Your task to perform on an android device: toggle wifi Image 0: 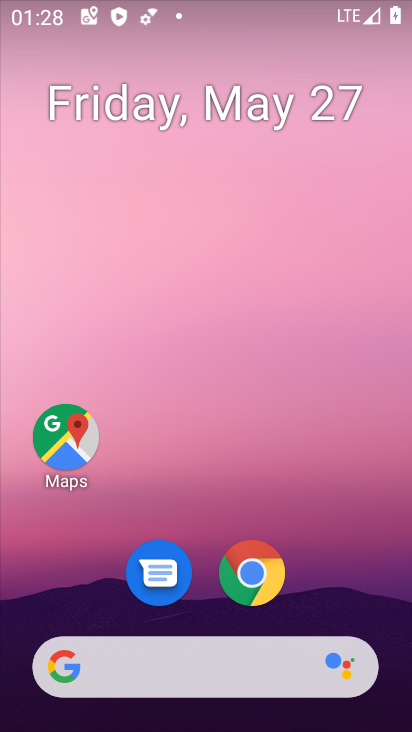
Step 0: drag from (200, 621) to (190, 99)
Your task to perform on an android device: toggle wifi Image 1: 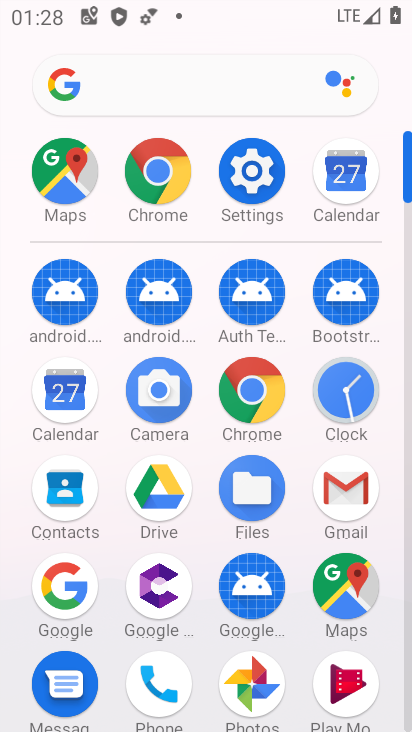
Step 1: click (252, 175)
Your task to perform on an android device: toggle wifi Image 2: 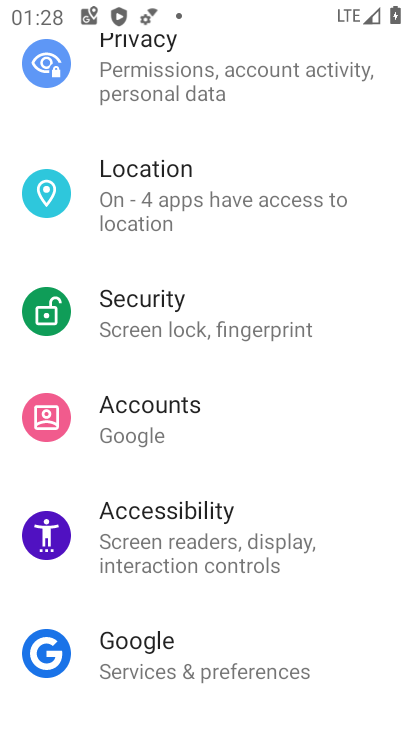
Step 2: drag from (244, 178) to (219, 599)
Your task to perform on an android device: toggle wifi Image 3: 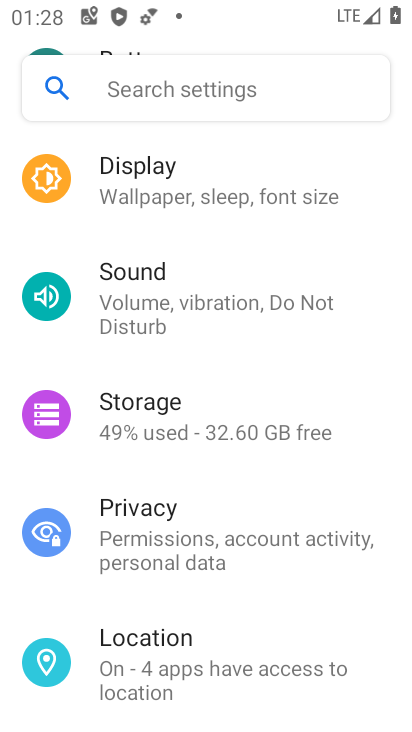
Step 3: drag from (252, 179) to (244, 566)
Your task to perform on an android device: toggle wifi Image 4: 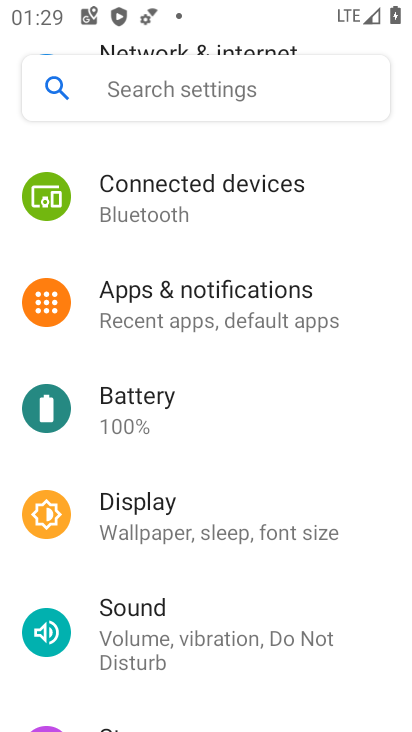
Step 4: drag from (250, 196) to (198, 623)
Your task to perform on an android device: toggle wifi Image 5: 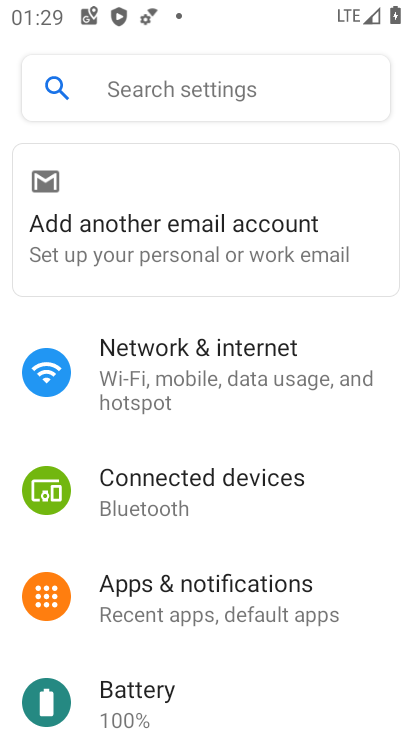
Step 5: click (184, 375)
Your task to perform on an android device: toggle wifi Image 6: 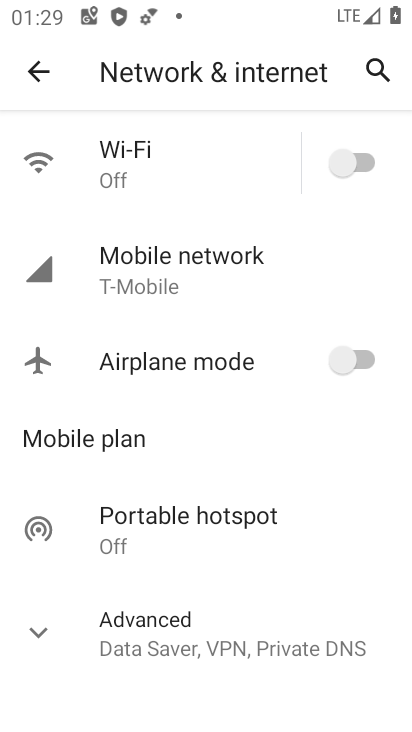
Step 6: click (168, 168)
Your task to perform on an android device: toggle wifi Image 7: 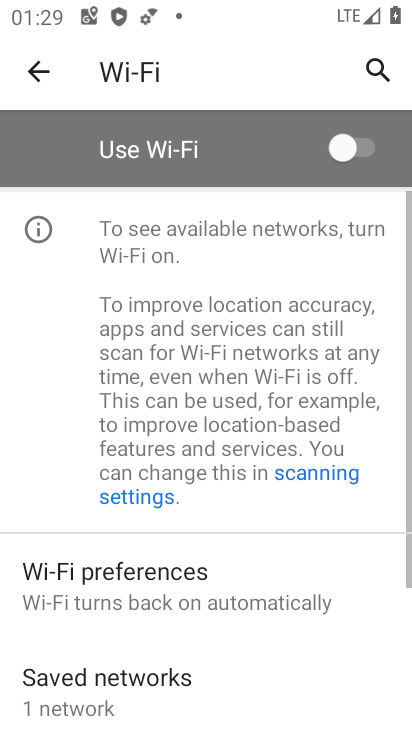
Step 7: click (347, 144)
Your task to perform on an android device: toggle wifi Image 8: 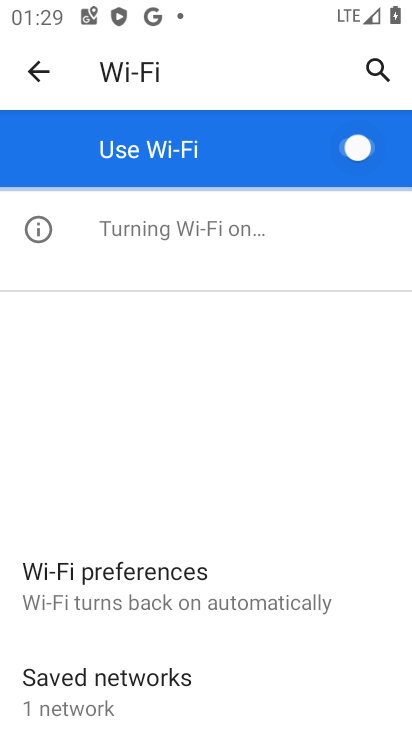
Step 8: task complete